Your task to perform on an android device: See recent photos Image 0: 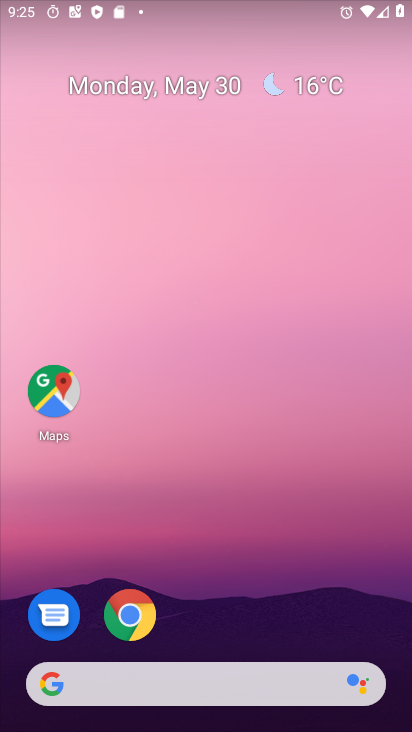
Step 0: drag from (261, 466) to (233, 98)
Your task to perform on an android device: See recent photos Image 1: 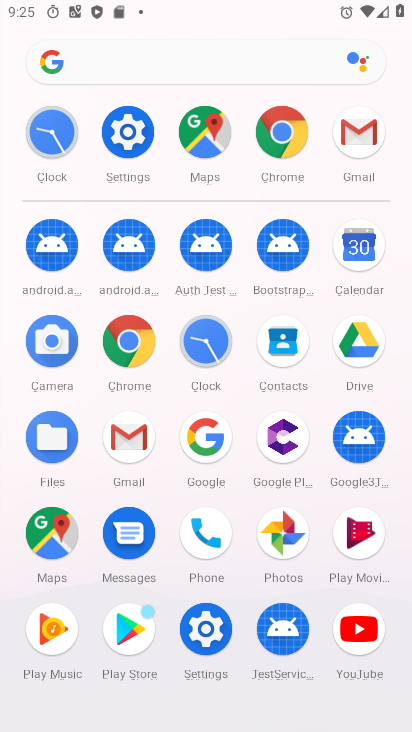
Step 1: click (300, 535)
Your task to perform on an android device: See recent photos Image 2: 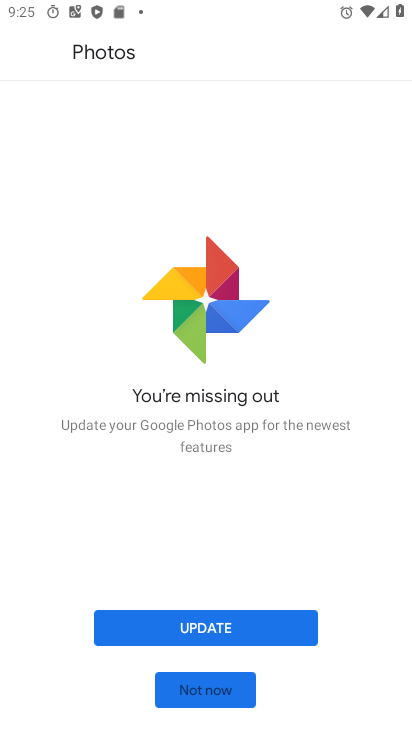
Step 2: click (247, 627)
Your task to perform on an android device: See recent photos Image 3: 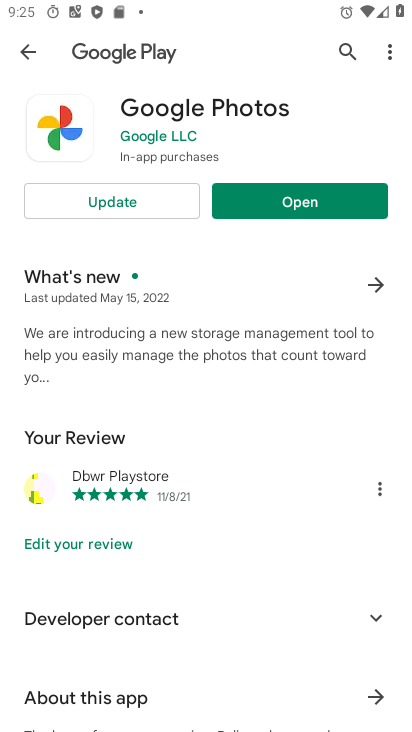
Step 3: click (149, 213)
Your task to perform on an android device: See recent photos Image 4: 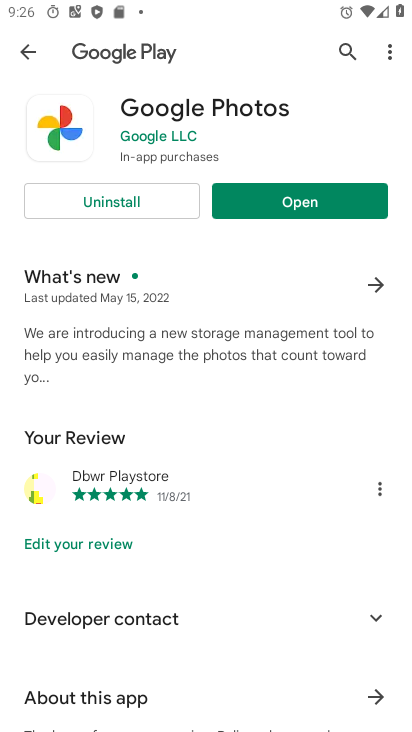
Step 4: click (311, 196)
Your task to perform on an android device: See recent photos Image 5: 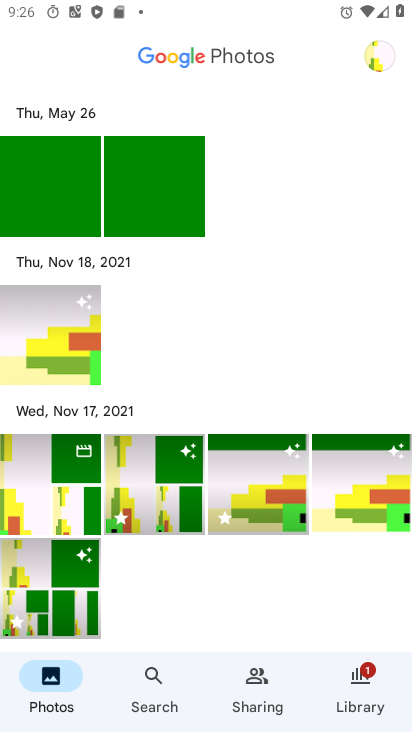
Step 5: click (54, 506)
Your task to perform on an android device: See recent photos Image 6: 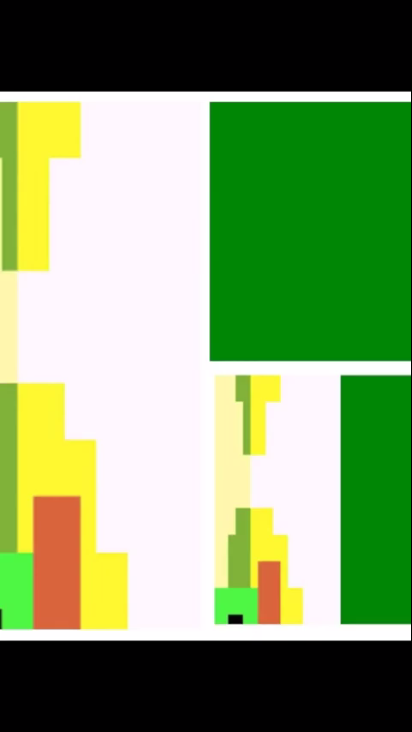
Step 6: task complete